Your task to perform on an android device: turn off wifi Image 0: 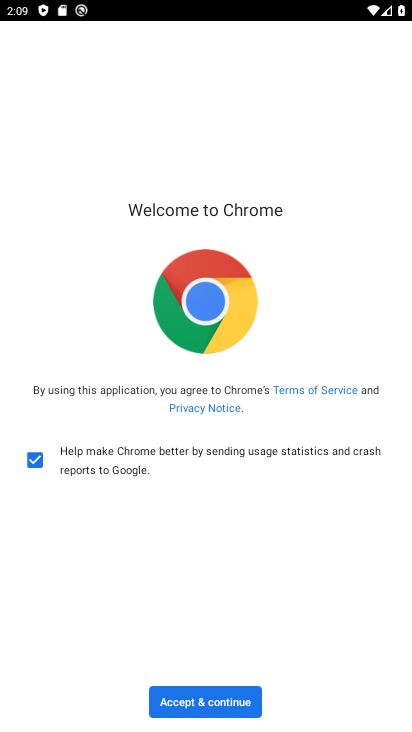
Step 0: click (220, 699)
Your task to perform on an android device: turn off wifi Image 1: 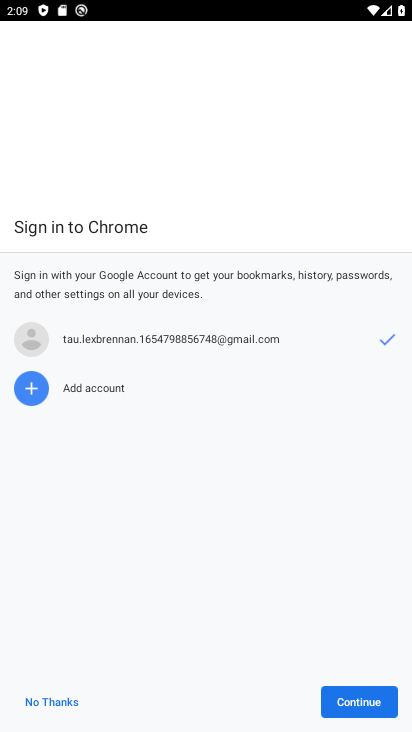
Step 1: click (65, 705)
Your task to perform on an android device: turn off wifi Image 2: 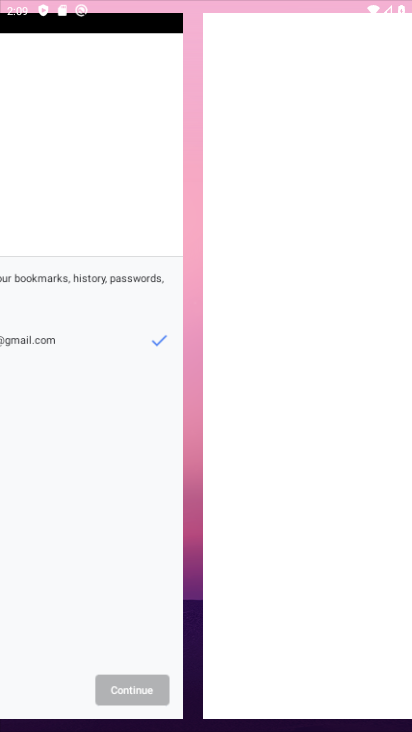
Step 2: click (63, 703)
Your task to perform on an android device: turn off wifi Image 3: 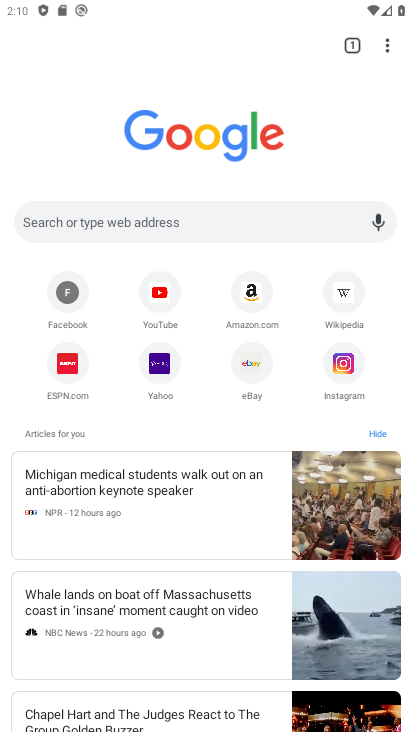
Step 3: press back button
Your task to perform on an android device: turn off wifi Image 4: 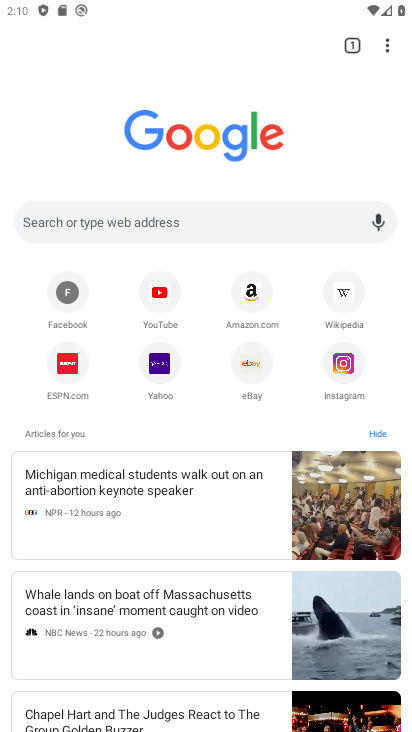
Step 4: press back button
Your task to perform on an android device: turn off wifi Image 5: 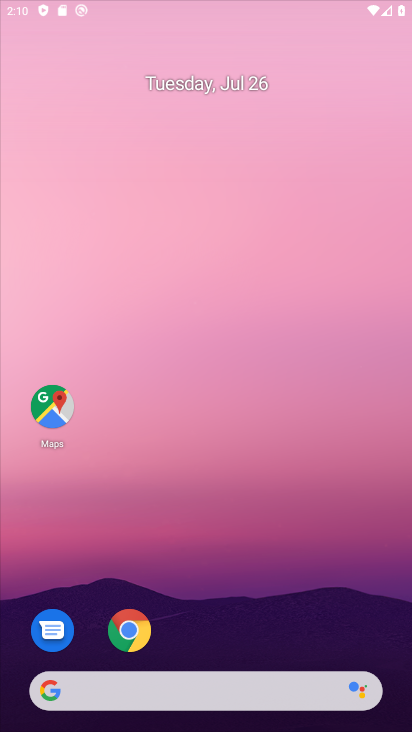
Step 5: press back button
Your task to perform on an android device: turn off wifi Image 6: 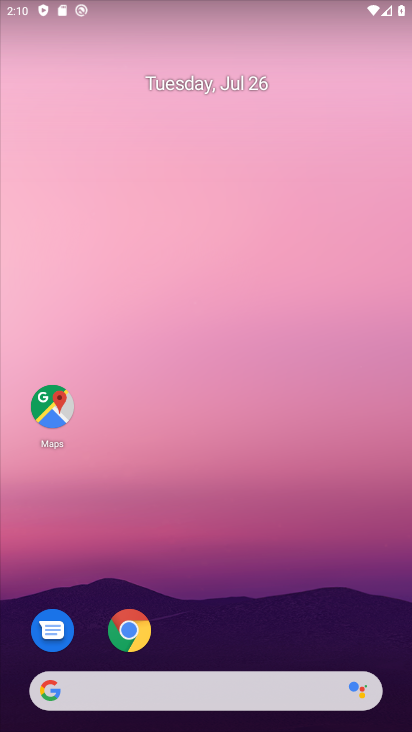
Step 6: drag from (248, 408) to (201, 57)
Your task to perform on an android device: turn off wifi Image 7: 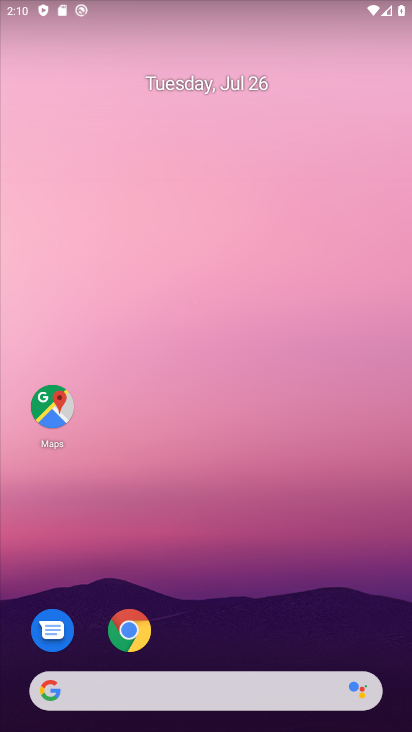
Step 7: drag from (257, 550) to (231, 162)
Your task to perform on an android device: turn off wifi Image 8: 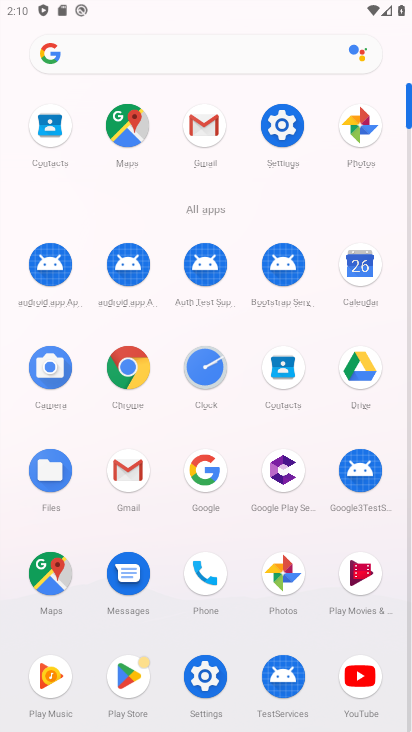
Step 8: click (281, 136)
Your task to perform on an android device: turn off wifi Image 9: 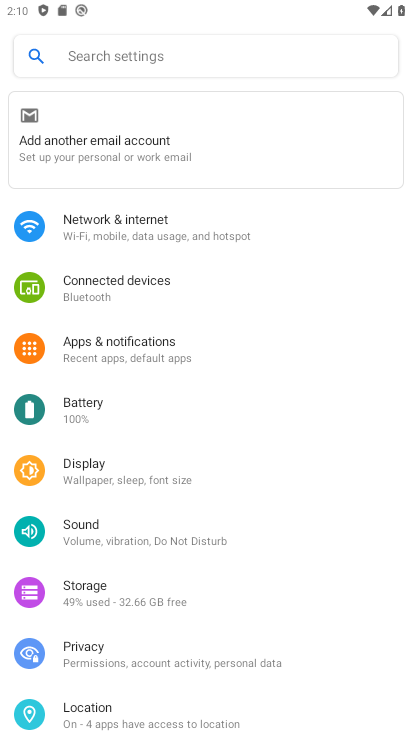
Step 9: click (143, 222)
Your task to perform on an android device: turn off wifi Image 10: 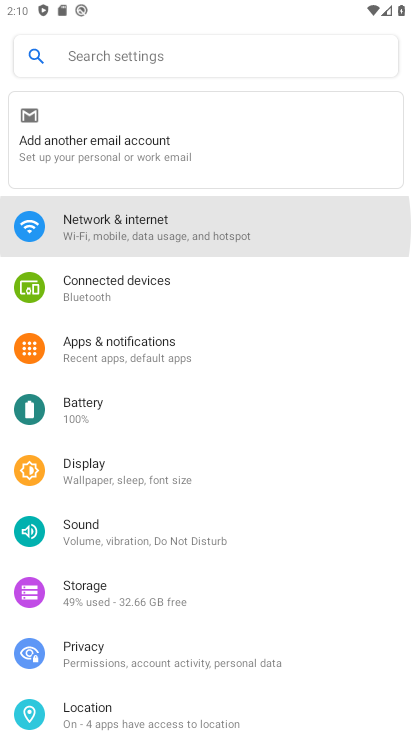
Step 10: click (151, 235)
Your task to perform on an android device: turn off wifi Image 11: 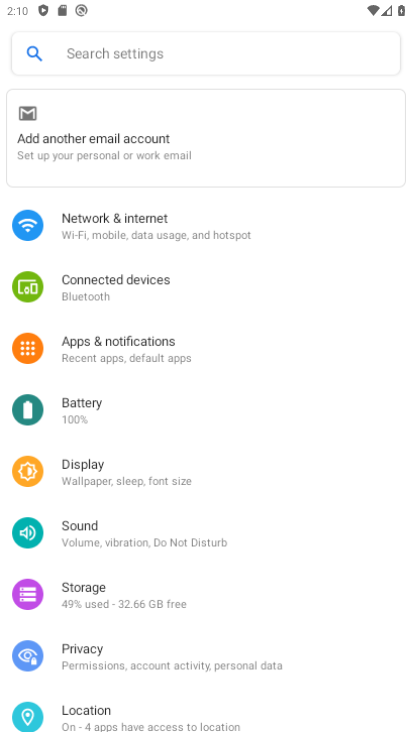
Step 11: click (148, 240)
Your task to perform on an android device: turn off wifi Image 12: 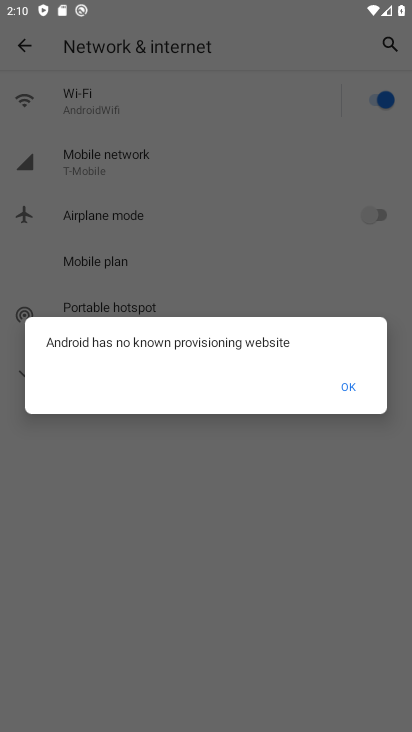
Step 12: click (368, 388)
Your task to perform on an android device: turn off wifi Image 13: 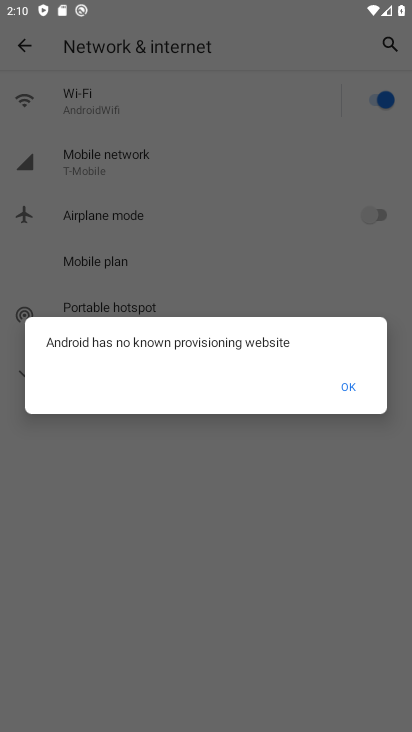
Step 13: click (354, 393)
Your task to perform on an android device: turn off wifi Image 14: 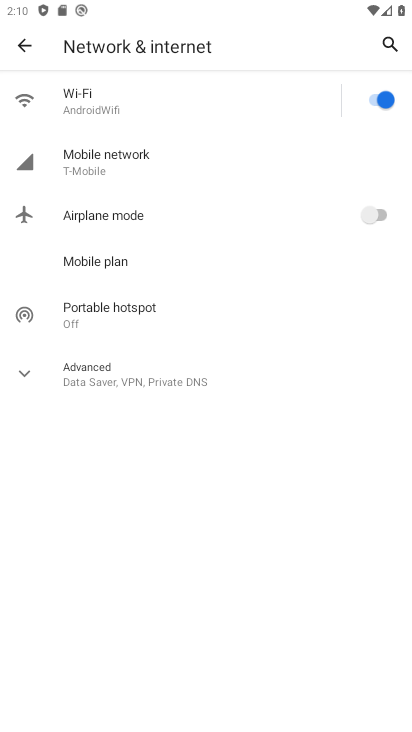
Step 14: click (375, 103)
Your task to perform on an android device: turn off wifi Image 15: 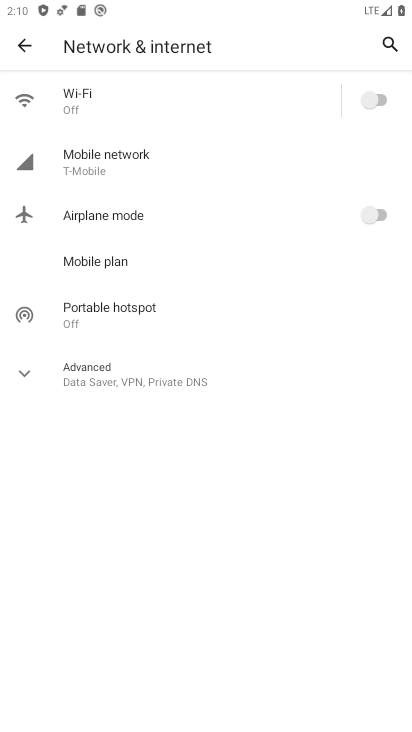
Step 15: task complete